Your task to perform on an android device: Open the web browser Image 0: 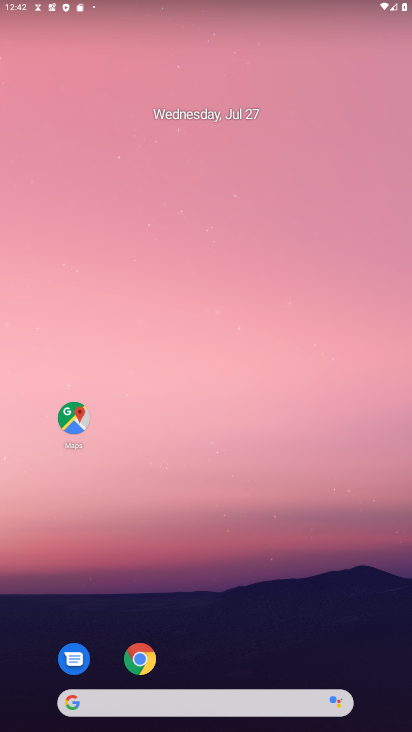
Step 0: click (142, 655)
Your task to perform on an android device: Open the web browser Image 1: 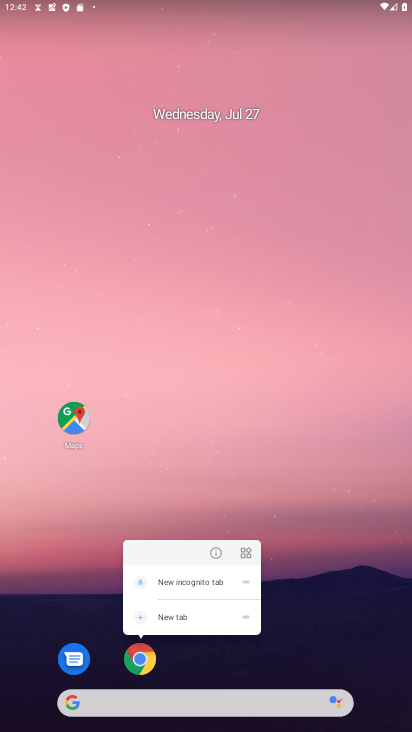
Step 1: click (140, 654)
Your task to perform on an android device: Open the web browser Image 2: 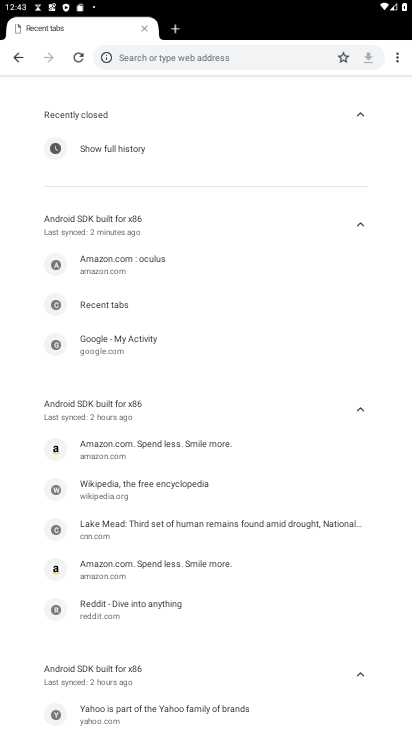
Step 2: click (165, 28)
Your task to perform on an android device: Open the web browser Image 3: 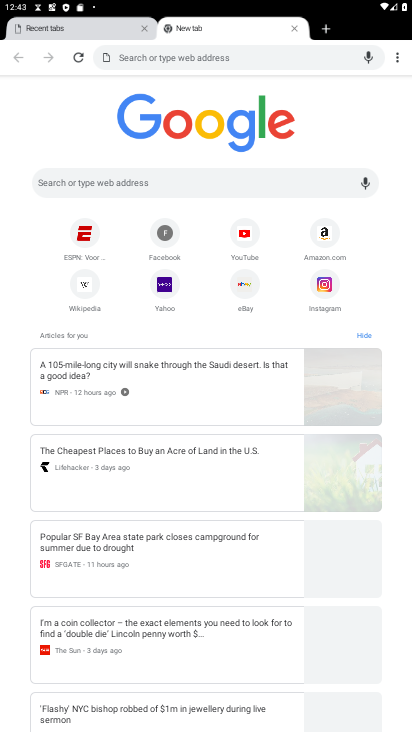
Step 3: task complete